Your task to perform on an android device: When is my next appointment? Image 0: 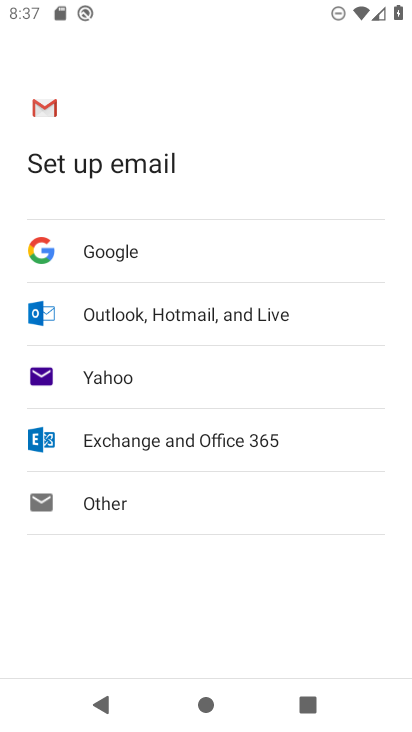
Step 0: press home button
Your task to perform on an android device: When is my next appointment? Image 1: 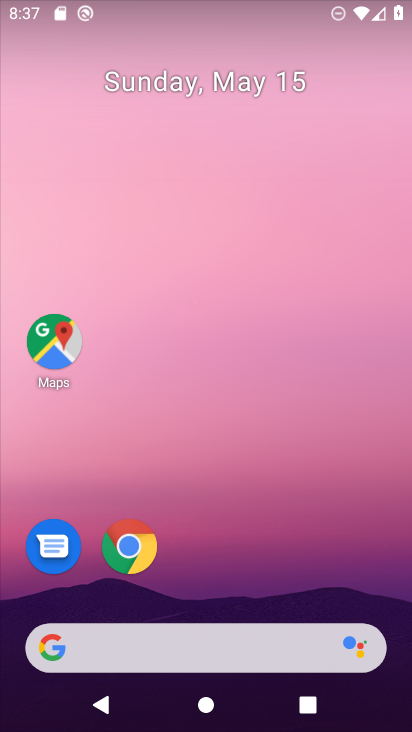
Step 1: drag from (239, 529) to (235, 38)
Your task to perform on an android device: When is my next appointment? Image 2: 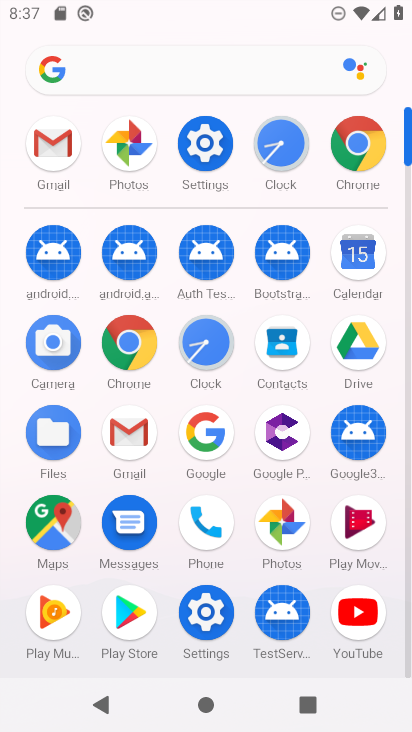
Step 2: click (354, 257)
Your task to perform on an android device: When is my next appointment? Image 3: 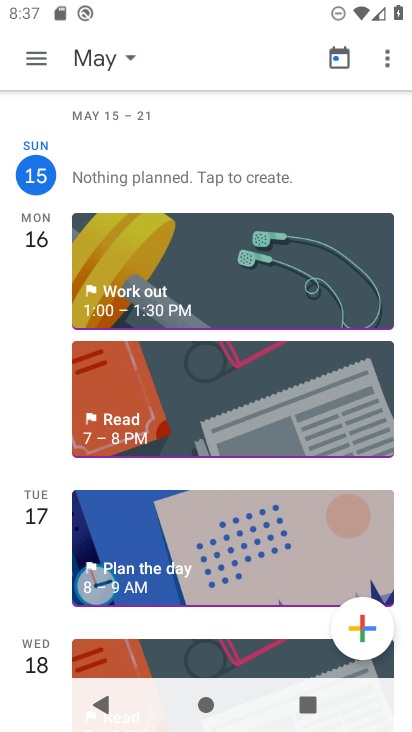
Step 3: click (280, 300)
Your task to perform on an android device: When is my next appointment? Image 4: 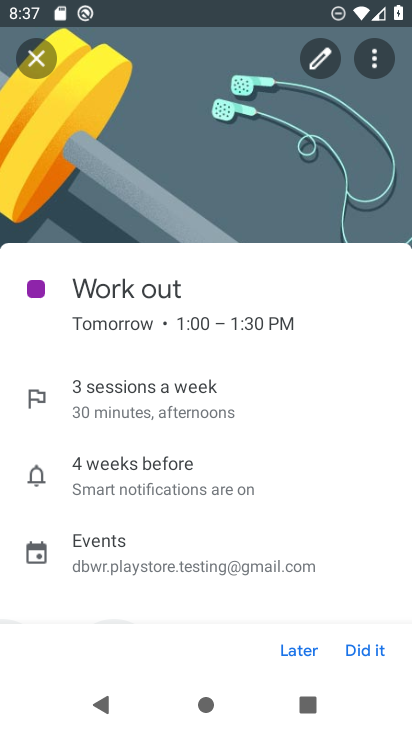
Step 4: task complete